Your task to perform on an android device: show emergency info Image 0: 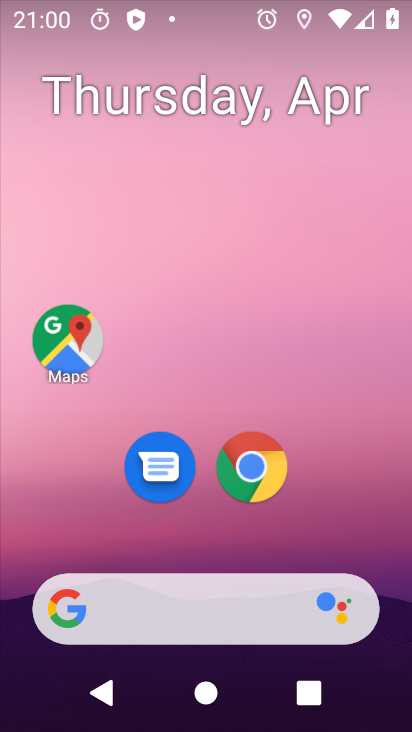
Step 0: drag from (200, 560) to (316, 704)
Your task to perform on an android device: show emergency info Image 1: 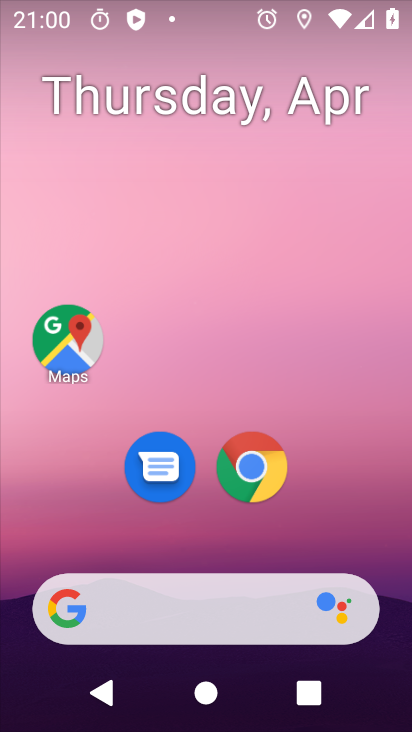
Step 1: drag from (214, 566) to (171, 3)
Your task to perform on an android device: show emergency info Image 2: 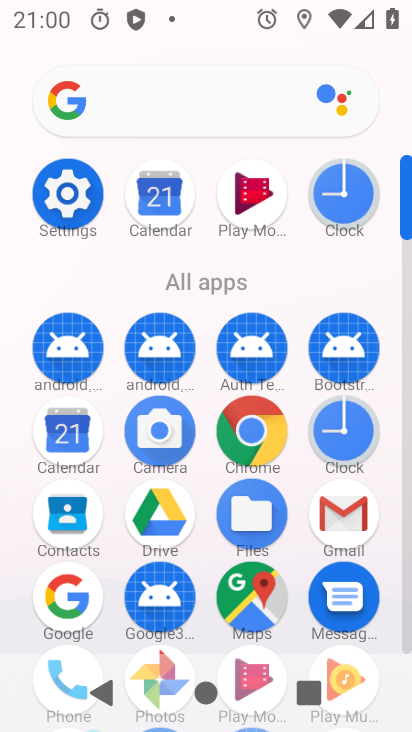
Step 2: click (56, 195)
Your task to perform on an android device: show emergency info Image 3: 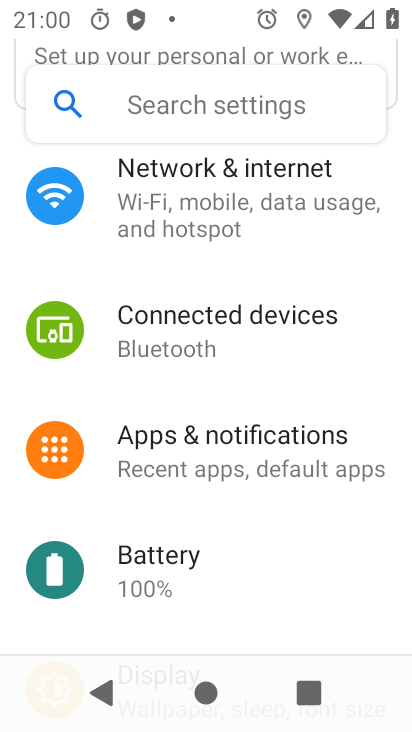
Step 3: drag from (247, 547) to (207, 46)
Your task to perform on an android device: show emergency info Image 4: 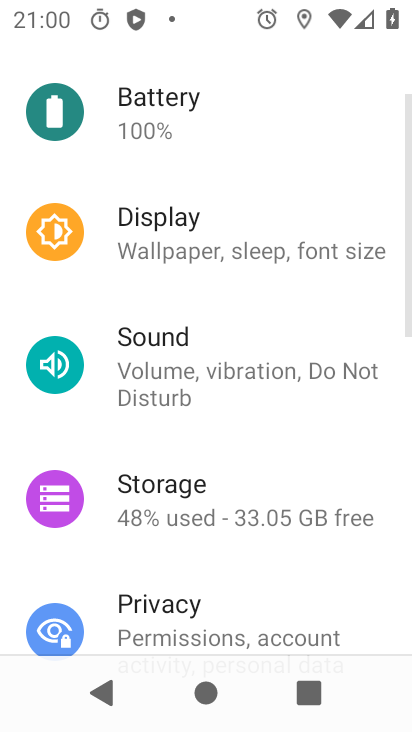
Step 4: drag from (220, 584) to (187, 124)
Your task to perform on an android device: show emergency info Image 5: 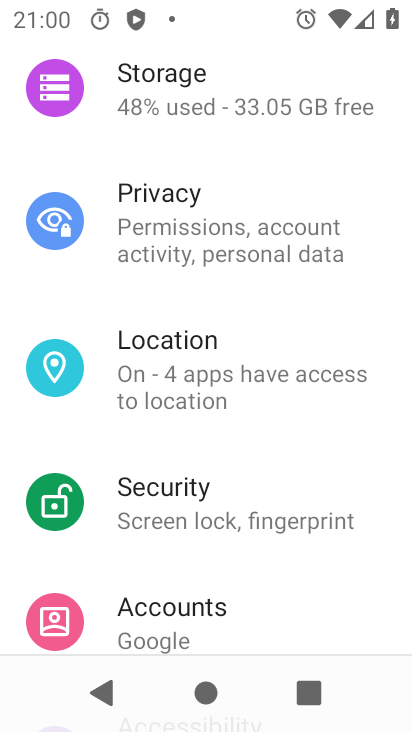
Step 5: drag from (182, 599) to (200, 135)
Your task to perform on an android device: show emergency info Image 6: 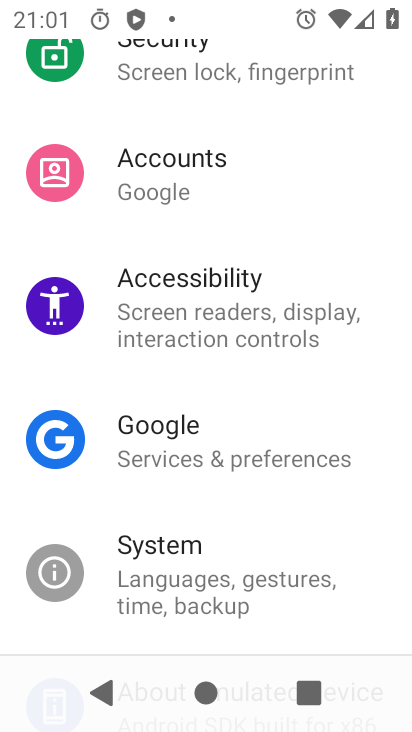
Step 6: drag from (193, 645) to (189, 186)
Your task to perform on an android device: show emergency info Image 7: 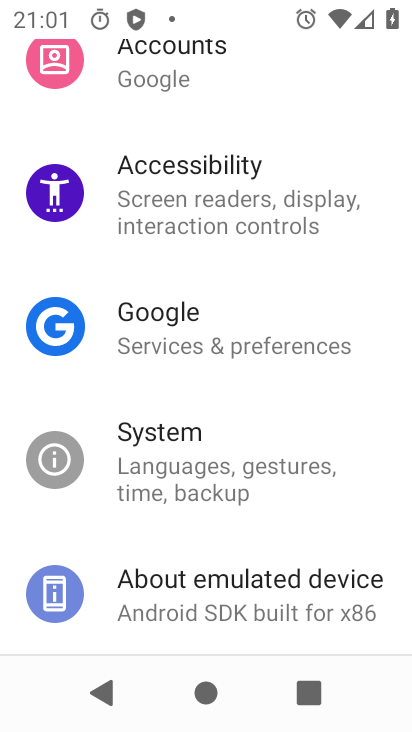
Step 7: click (230, 580)
Your task to perform on an android device: show emergency info Image 8: 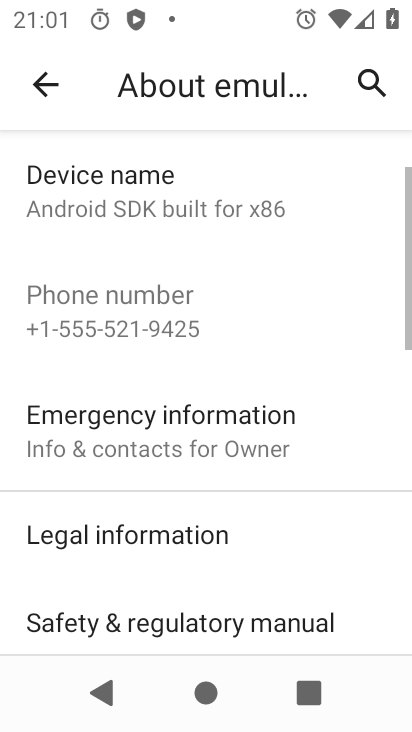
Step 8: click (176, 431)
Your task to perform on an android device: show emergency info Image 9: 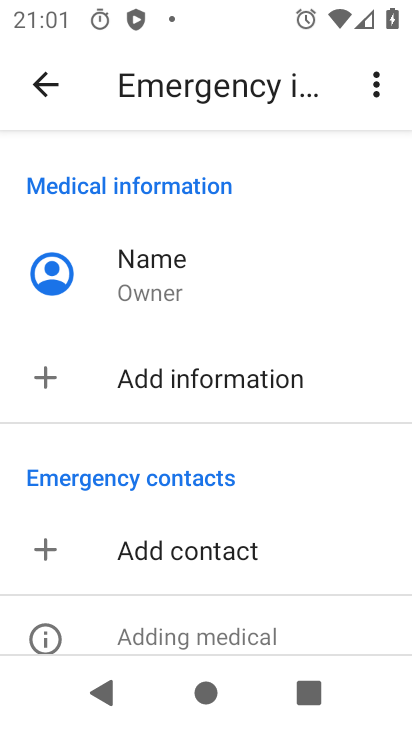
Step 9: task complete